Your task to perform on an android device: change the clock display to digital Image 0: 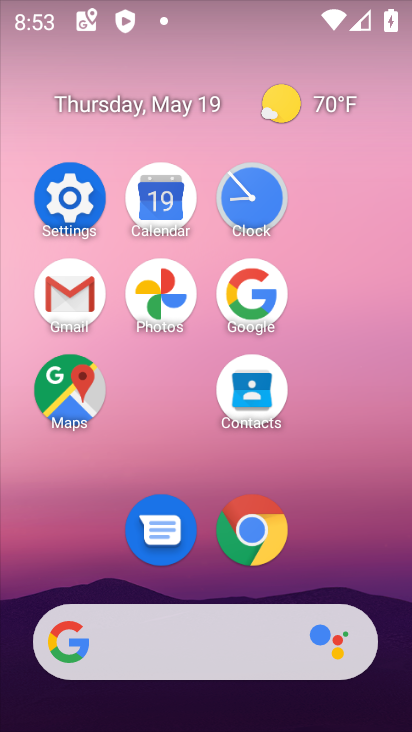
Step 0: click (248, 204)
Your task to perform on an android device: change the clock display to digital Image 1: 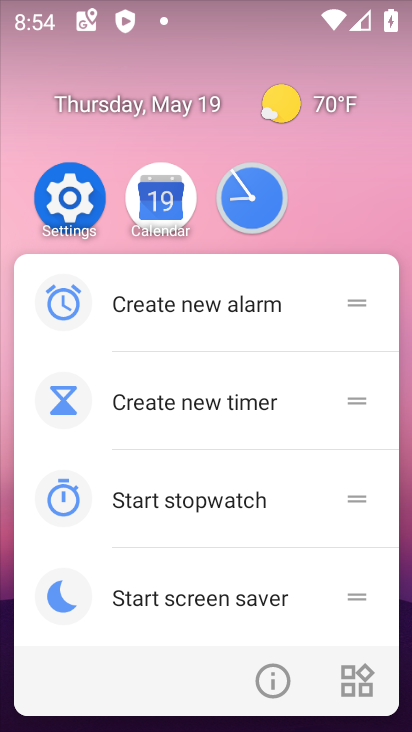
Step 1: click (236, 208)
Your task to perform on an android device: change the clock display to digital Image 2: 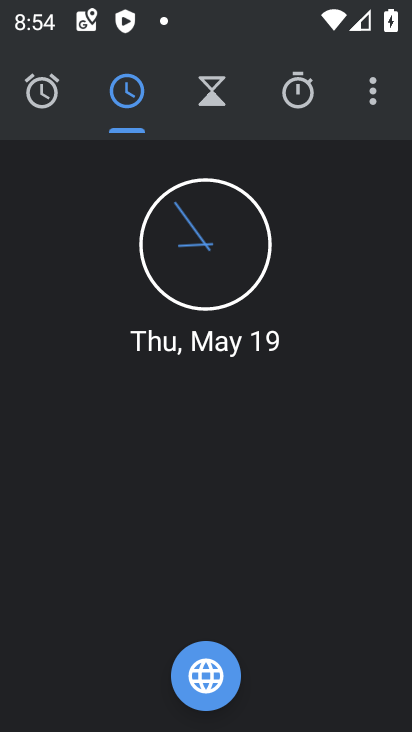
Step 2: click (382, 86)
Your task to perform on an android device: change the clock display to digital Image 3: 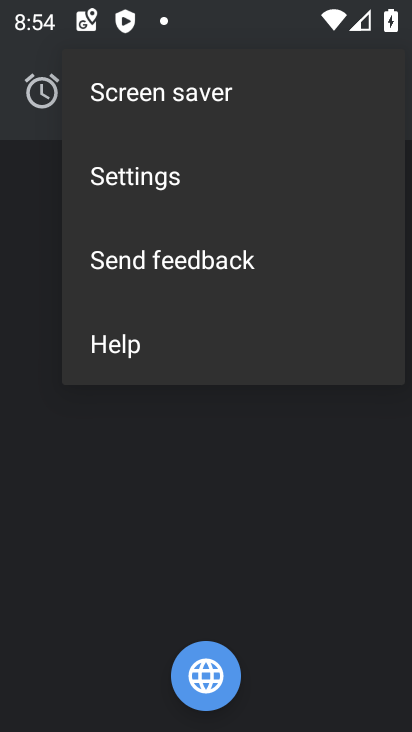
Step 3: click (188, 191)
Your task to perform on an android device: change the clock display to digital Image 4: 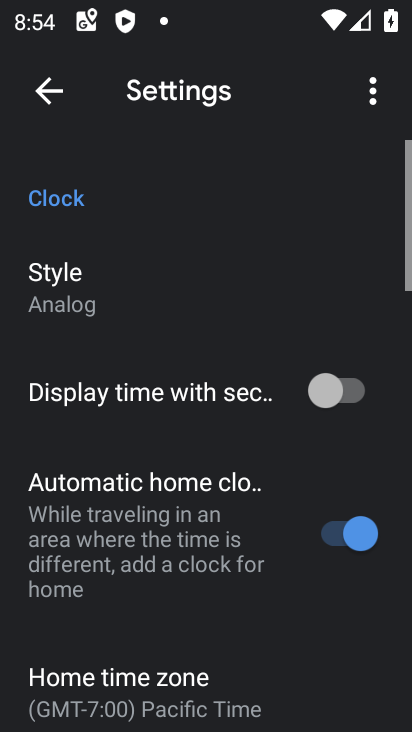
Step 4: click (155, 300)
Your task to perform on an android device: change the clock display to digital Image 5: 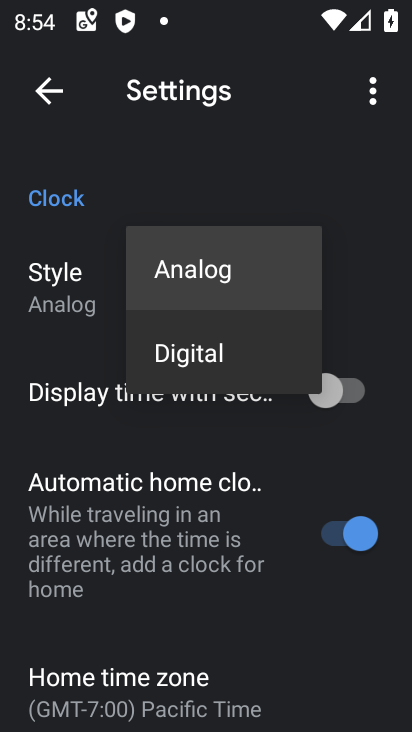
Step 5: click (191, 352)
Your task to perform on an android device: change the clock display to digital Image 6: 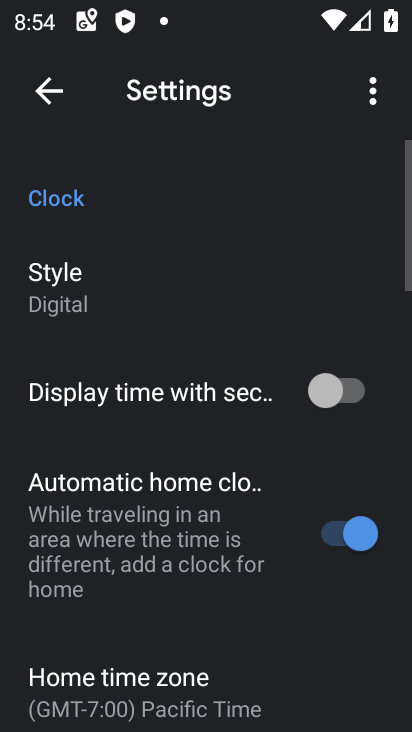
Step 6: task complete